Your task to perform on an android device: Open Wikipedia Image 0: 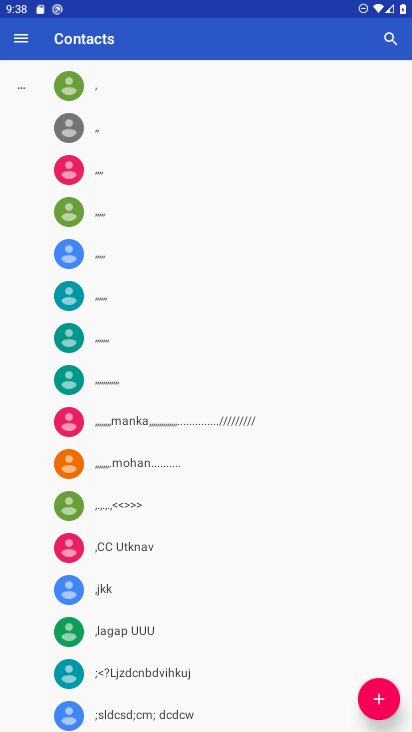
Step 0: press home button
Your task to perform on an android device: Open Wikipedia Image 1: 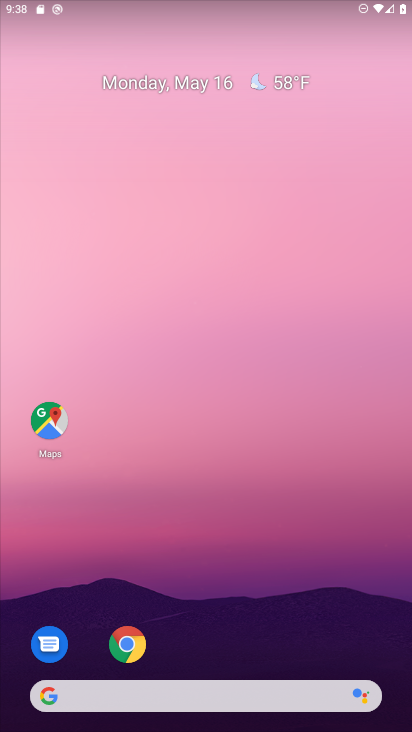
Step 1: click (144, 656)
Your task to perform on an android device: Open Wikipedia Image 2: 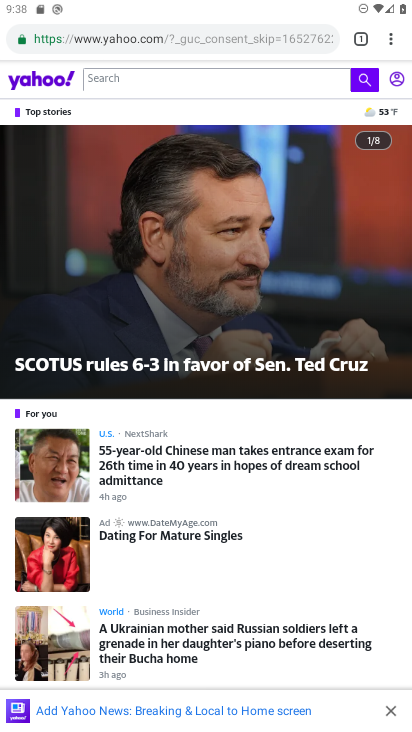
Step 2: click (174, 33)
Your task to perform on an android device: Open Wikipedia Image 3: 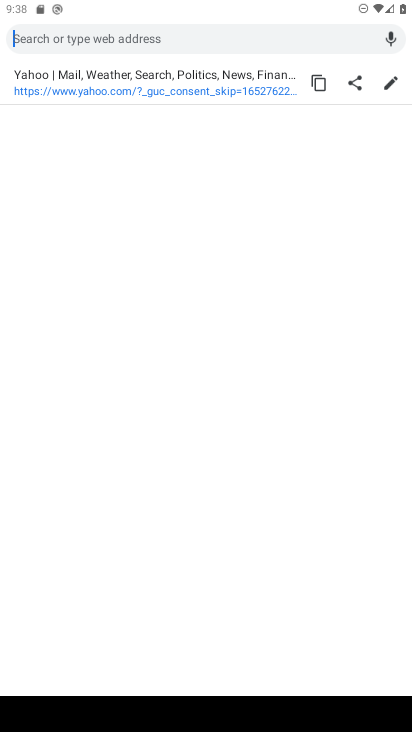
Step 3: type "wikipedia"
Your task to perform on an android device: Open Wikipedia Image 4: 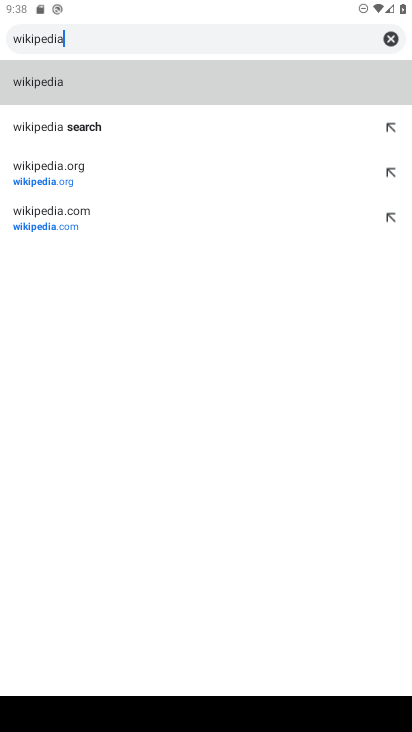
Step 4: click (70, 170)
Your task to perform on an android device: Open Wikipedia Image 5: 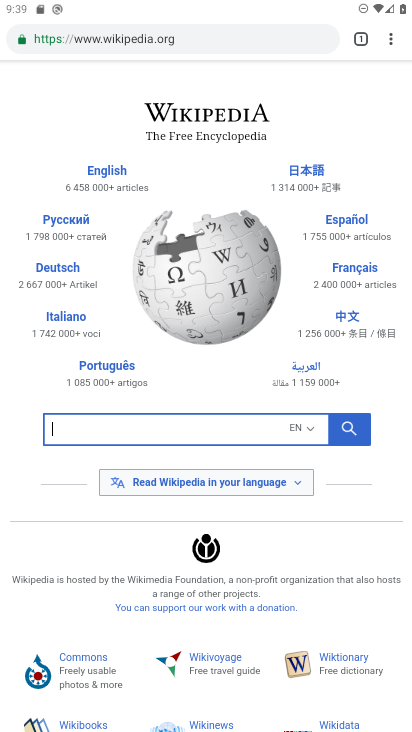
Step 5: task complete